Your task to perform on an android device: turn off translation in the chrome app Image 0: 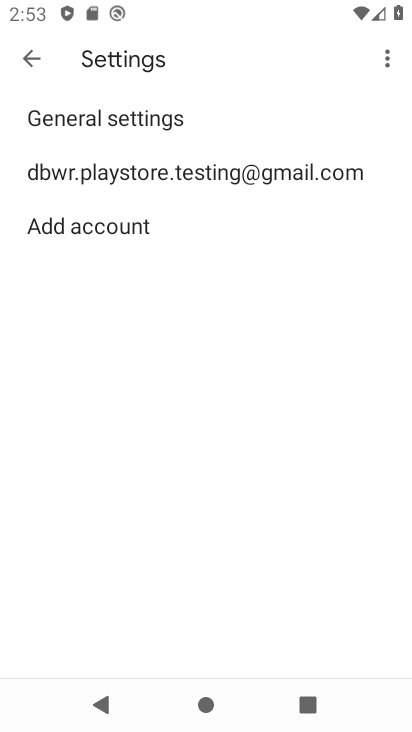
Step 0: press home button
Your task to perform on an android device: turn off translation in the chrome app Image 1: 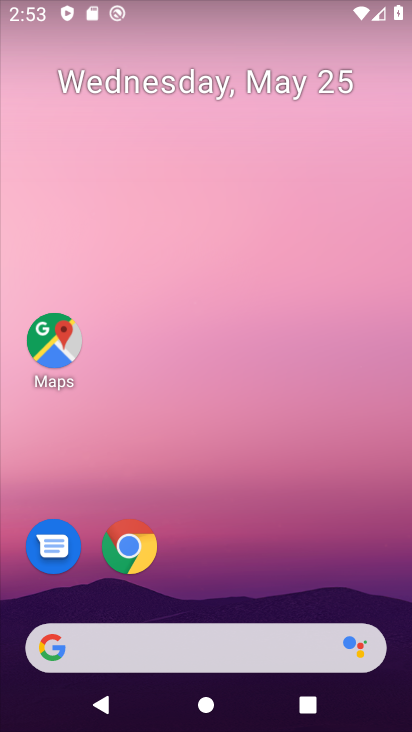
Step 1: click (118, 541)
Your task to perform on an android device: turn off translation in the chrome app Image 2: 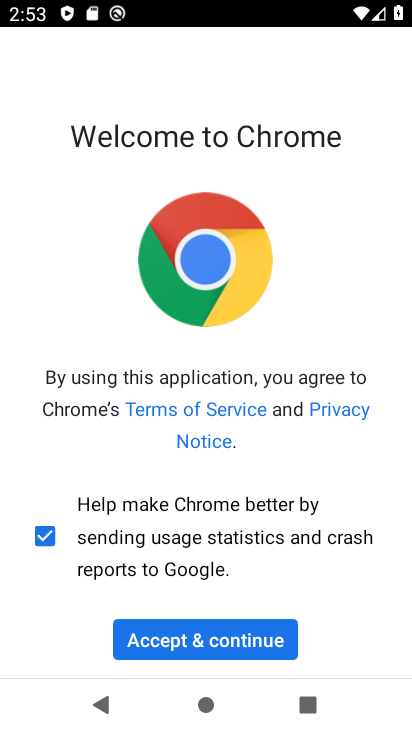
Step 2: click (201, 656)
Your task to perform on an android device: turn off translation in the chrome app Image 3: 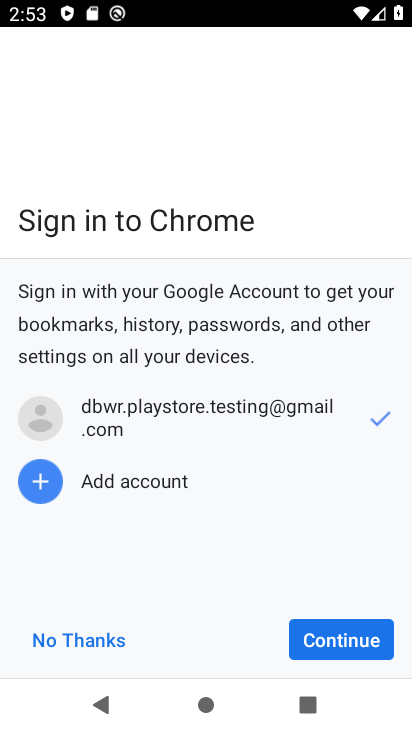
Step 3: click (311, 637)
Your task to perform on an android device: turn off translation in the chrome app Image 4: 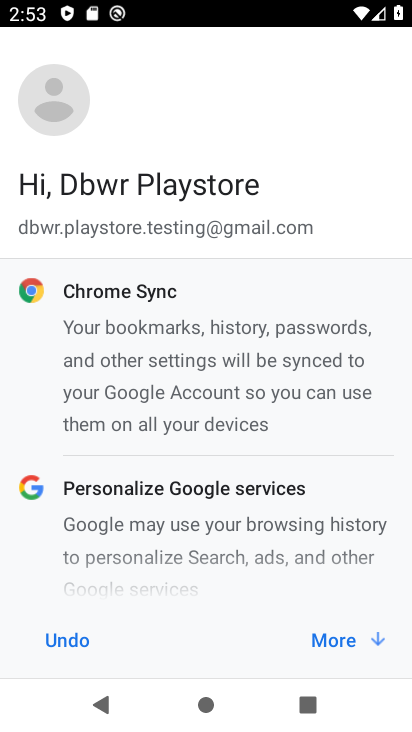
Step 4: click (311, 637)
Your task to perform on an android device: turn off translation in the chrome app Image 5: 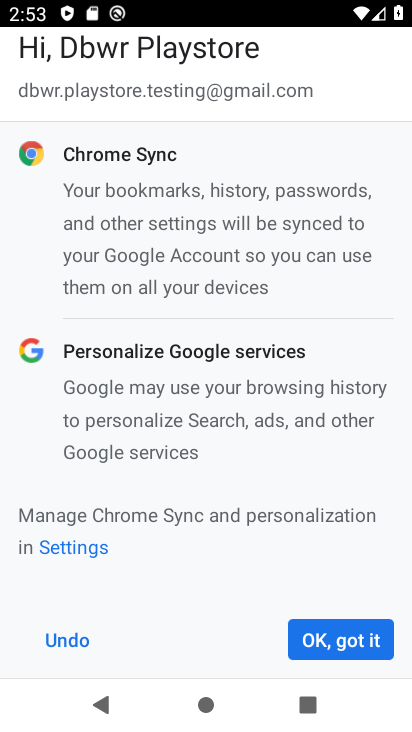
Step 5: click (311, 637)
Your task to perform on an android device: turn off translation in the chrome app Image 6: 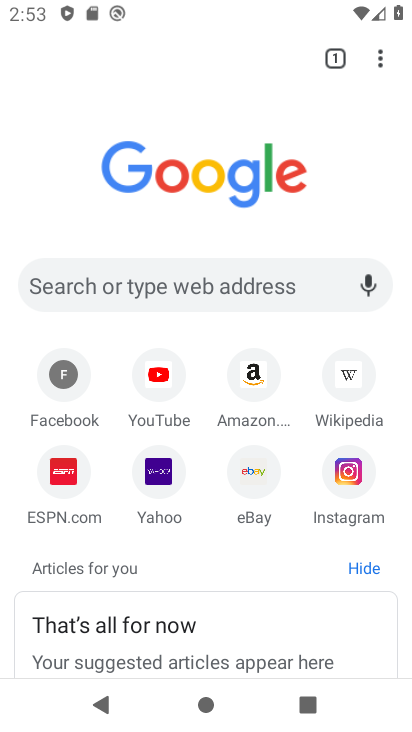
Step 6: click (377, 58)
Your task to perform on an android device: turn off translation in the chrome app Image 7: 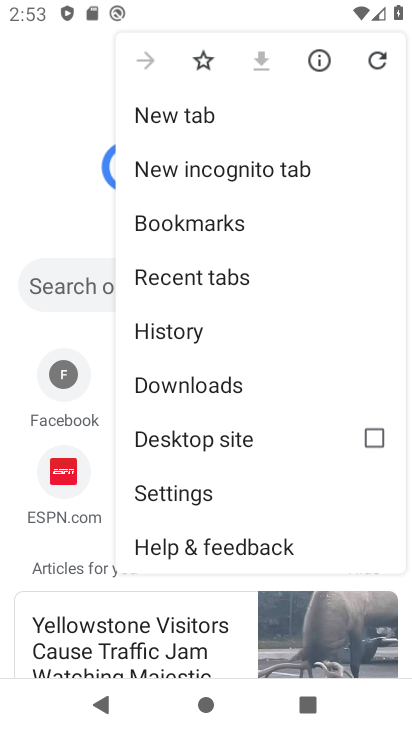
Step 7: click (182, 502)
Your task to perform on an android device: turn off translation in the chrome app Image 8: 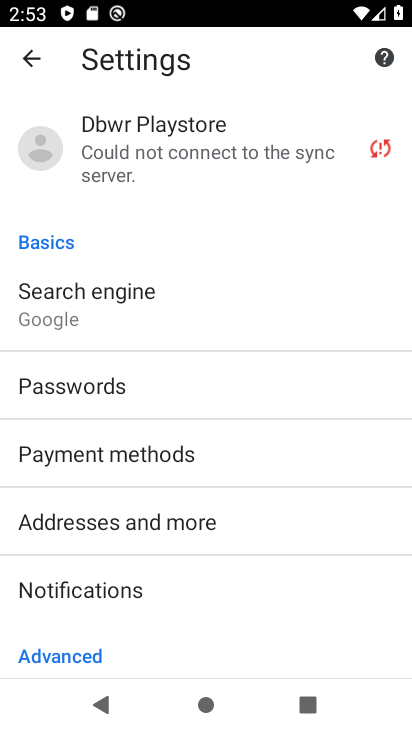
Step 8: drag from (176, 593) to (173, 312)
Your task to perform on an android device: turn off translation in the chrome app Image 9: 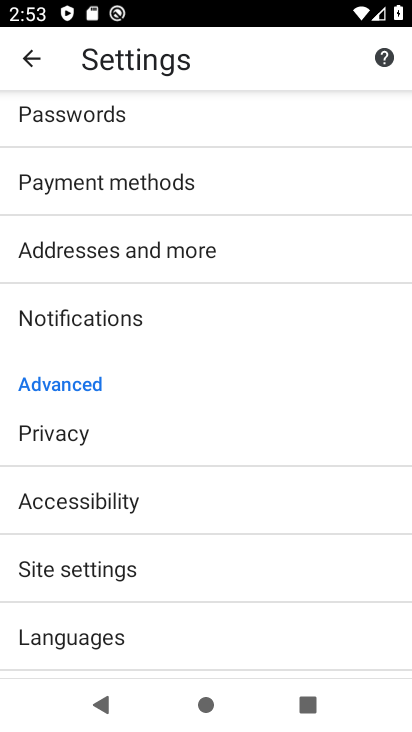
Step 9: click (96, 638)
Your task to perform on an android device: turn off translation in the chrome app Image 10: 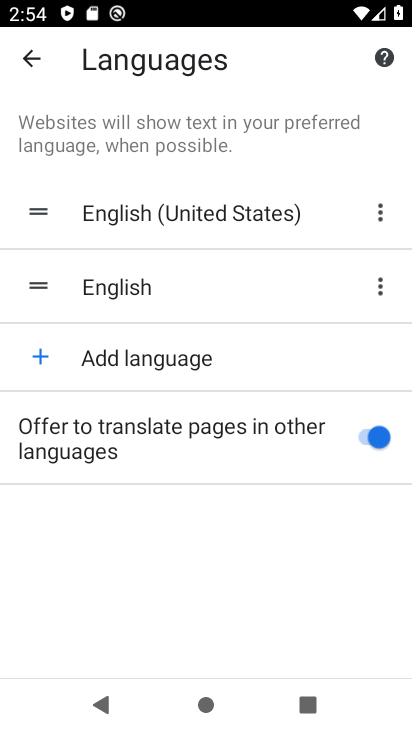
Step 10: click (381, 439)
Your task to perform on an android device: turn off translation in the chrome app Image 11: 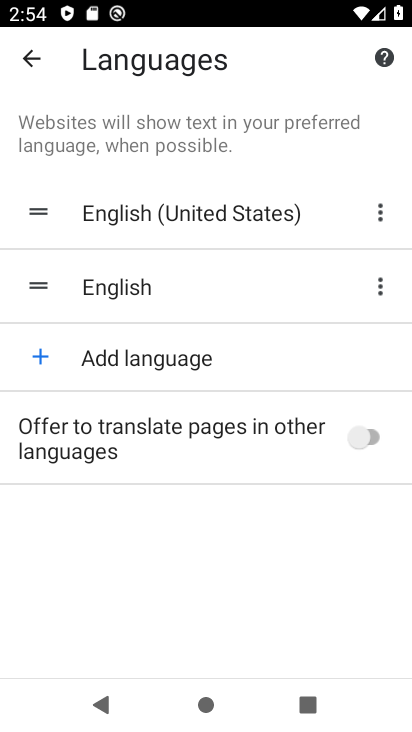
Step 11: task complete